Your task to perform on an android device: allow cookies in the chrome app Image 0: 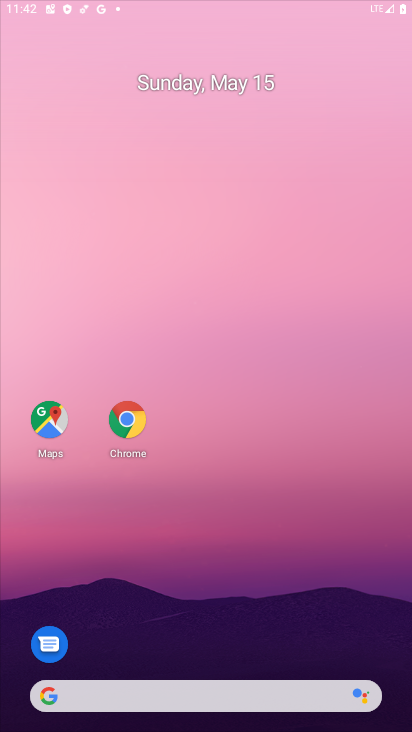
Step 0: click (198, 166)
Your task to perform on an android device: allow cookies in the chrome app Image 1: 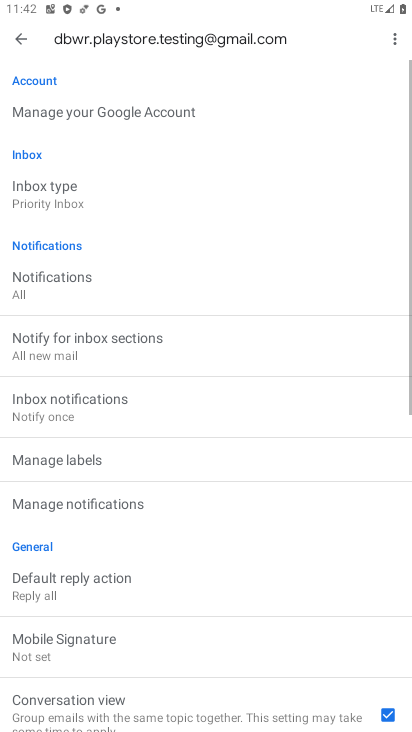
Step 1: press home button
Your task to perform on an android device: allow cookies in the chrome app Image 2: 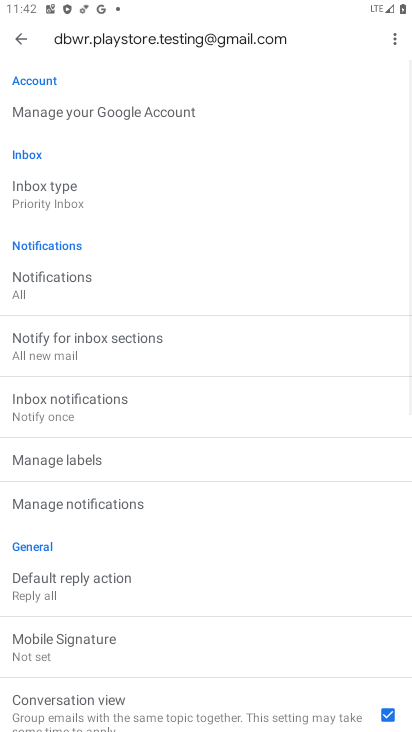
Step 2: drag from (245, 629) to (302, 255)
Your task to perform on an android device: allow cookies in the chrome app Image 3: 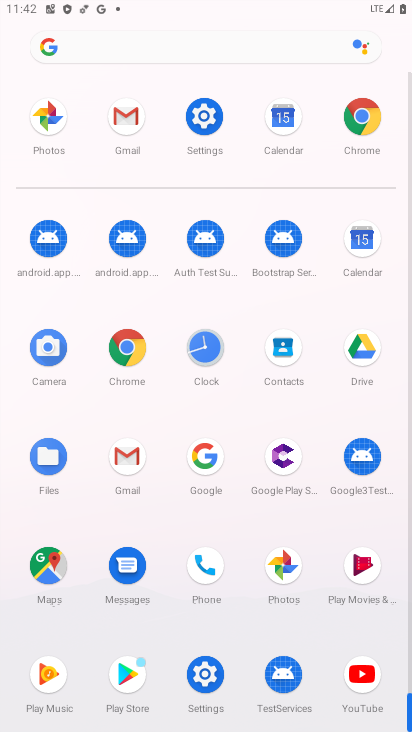
Step 3: click (360, 112)
Your task to perform on an android device: allow cookies in the chrome app Image 4: 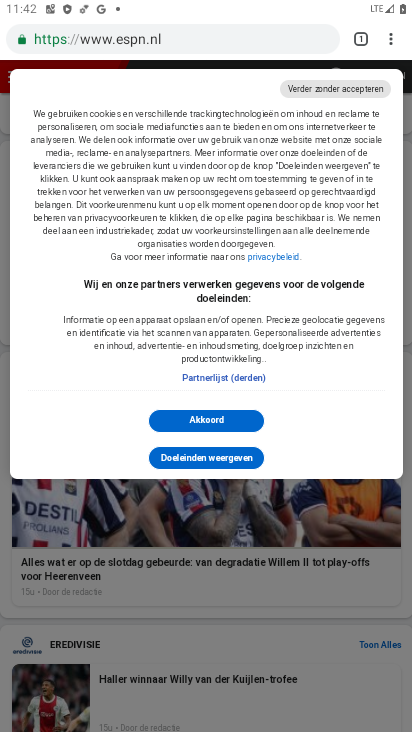
Step 4: drag from (300, 392) to (318, 195)
Your task to perform on an android device: allow cookies in the chrome app Image 5: 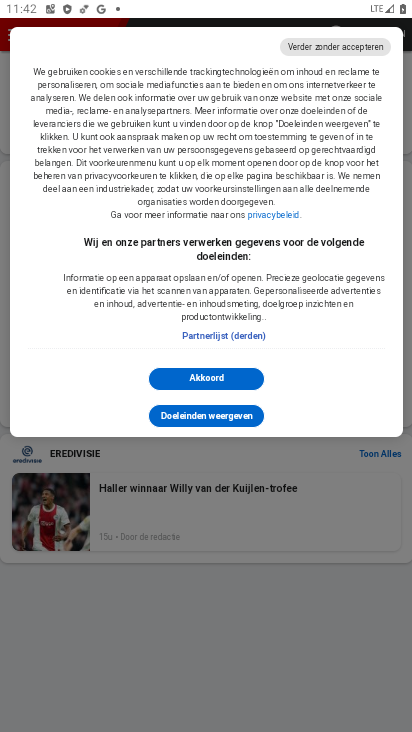
Step 5: drag from (321, 128) to (347, 539)
Your task to perform on an android device: allow cookies in the chrome app Image 6: 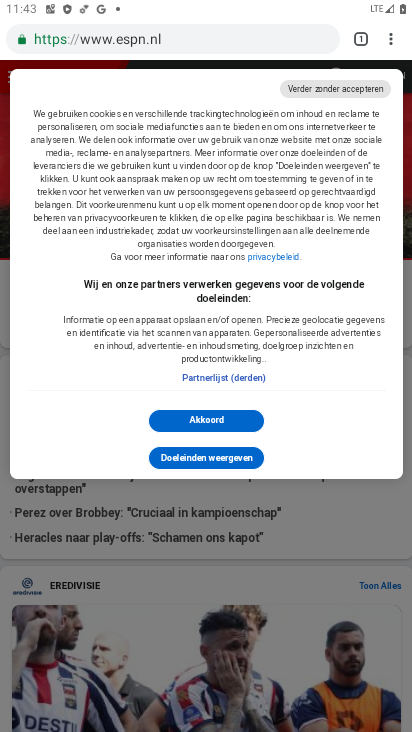
Step 6: drag from (387, 29) to (279, 475)
Your task to perform on an android device: allow cookies in the chrome app Image 7: 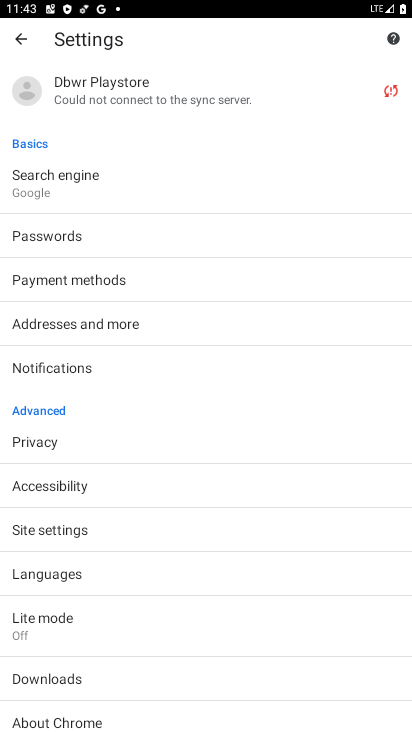
Step 7: drag from (172, 613) to (248, 279)
Your task to perform on an android device: allow cookies in the chrome app Image 8: 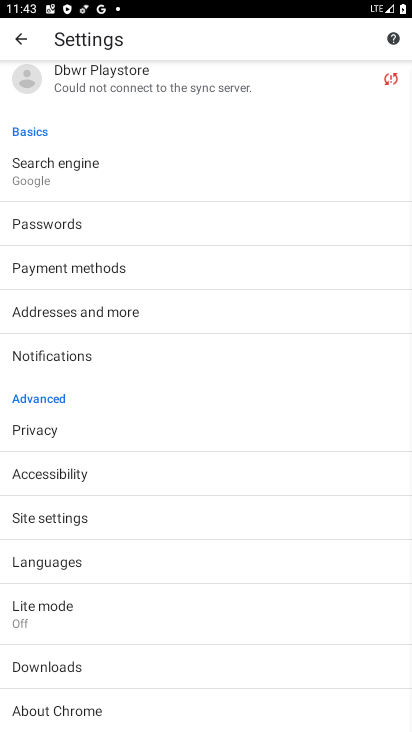
Step 8: drag from (229, 226) to (255, 528)
Your task to perform on an android device: allow cookies in the chrome app Image 9: 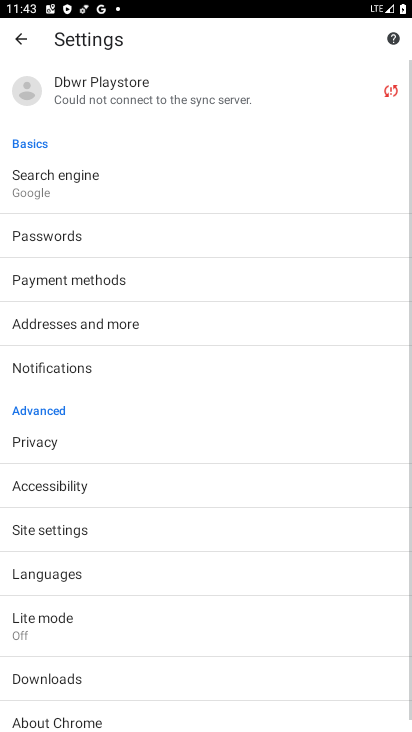
Step 9: click (92, 534)
Your task to perform on an android device: allow cookies in the chrome app Image 10: 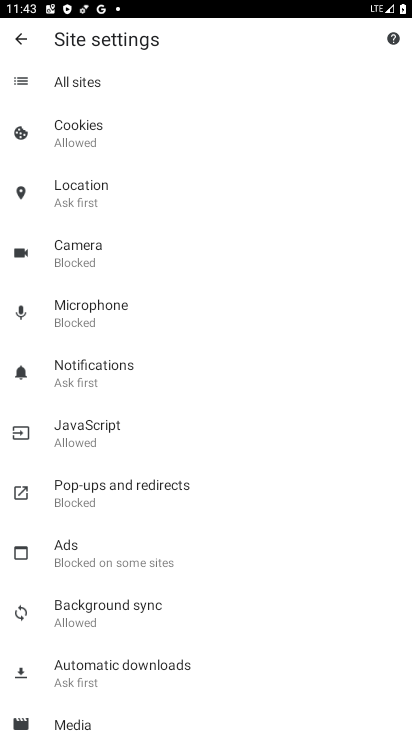
Step 10: click (19, 38)
Your task to perform on an android device: allow cookies in the chrome app Image 11: 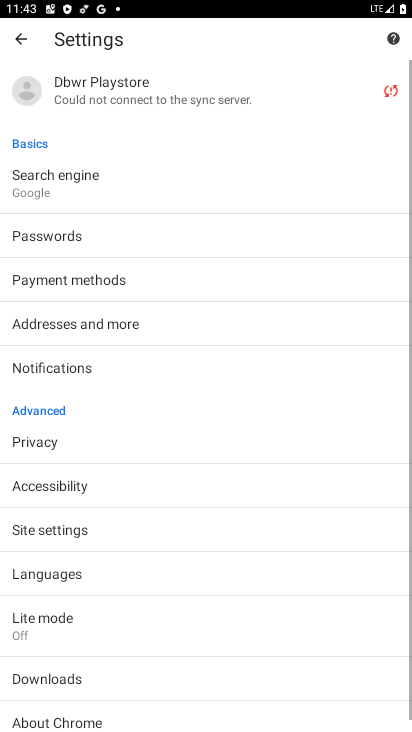
Step 11: drag from (170, 516) to (225, 217)
Your task to perform on an android device: allow cookies in the chrome app Image 12: 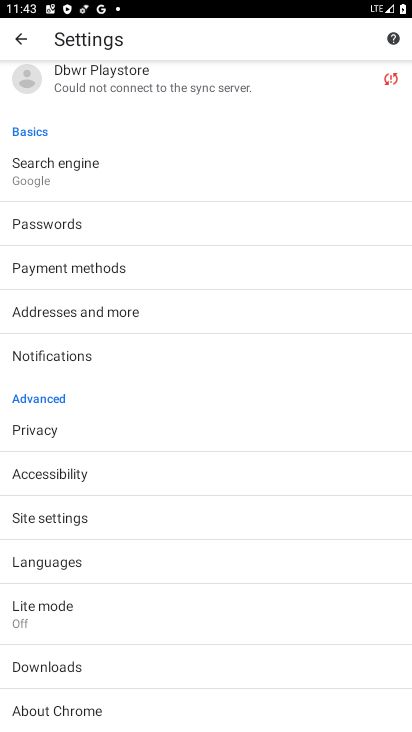
Step 12: drag from (127, 335) to (193, 688)
Your task to perform on an android device: allow cookies in the chrome app Image 13: 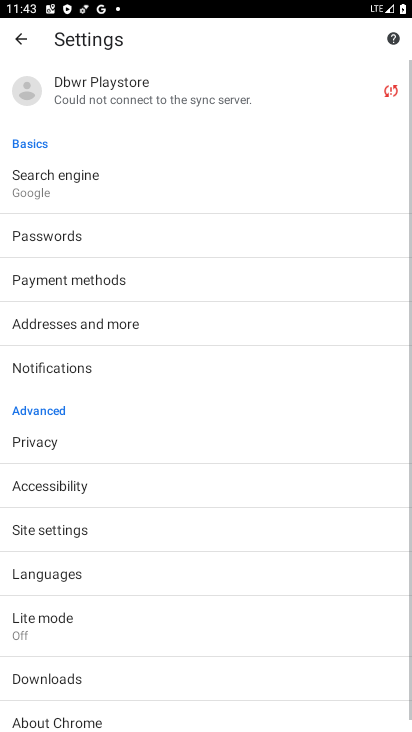
Step 13: click (55, 526)
Your task to perform on an android device: allow cookies in the chrome app Image 14: 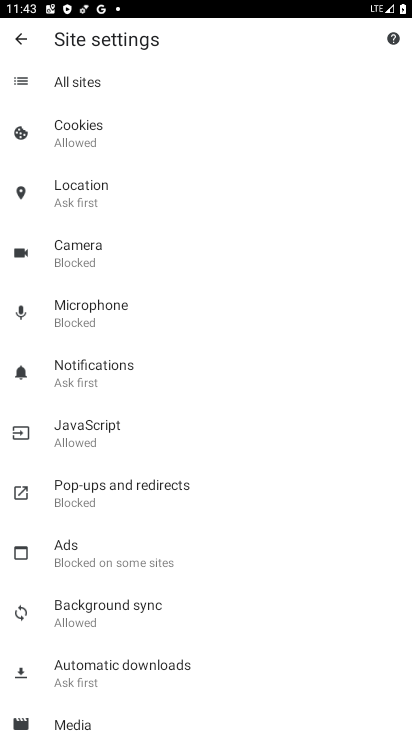
Step 14: click (100, 134)
Your task to perform on an android device: allow cookies in the chrome app Image 15: 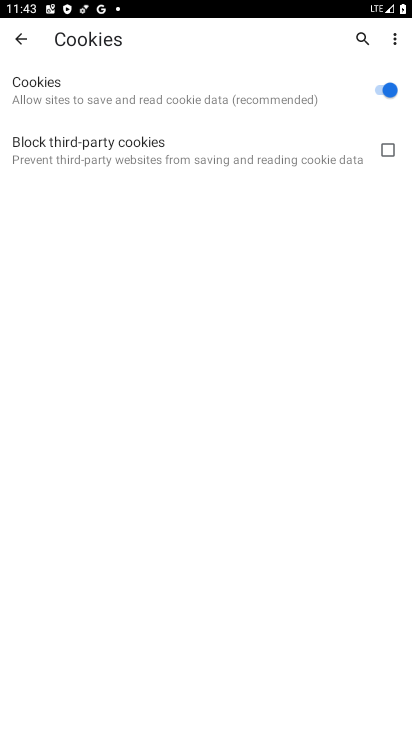
Step 15: task complete